Your task to perform on an android device: open app "Cash App" (install if not already installed) and go to login screen Image 0: 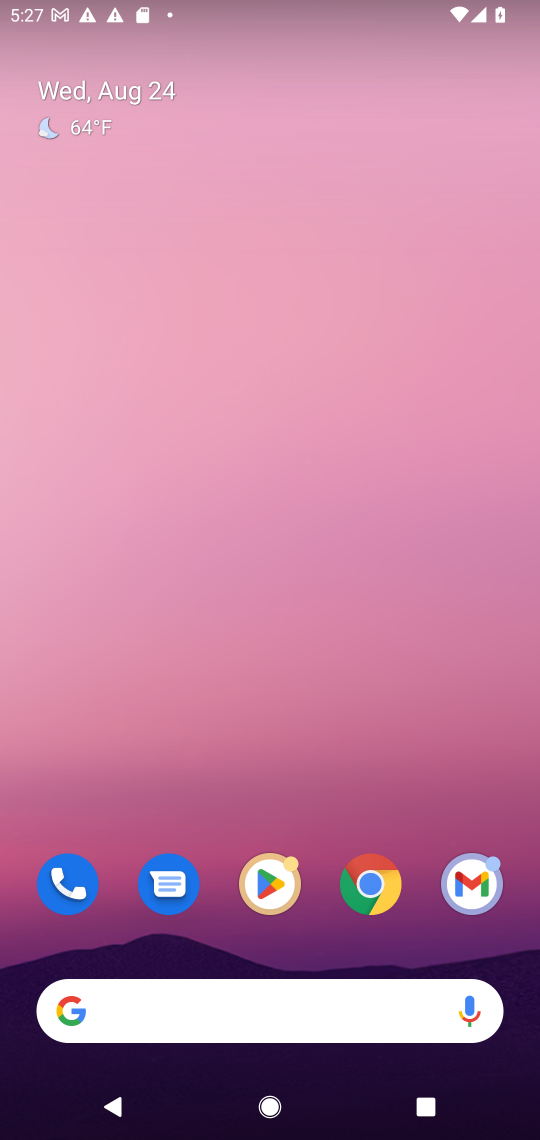
Step 0: click (267, 875)
Your task to perform on an android device: open app "Cash App" (install if not already installed) and go to login screen Image 1: 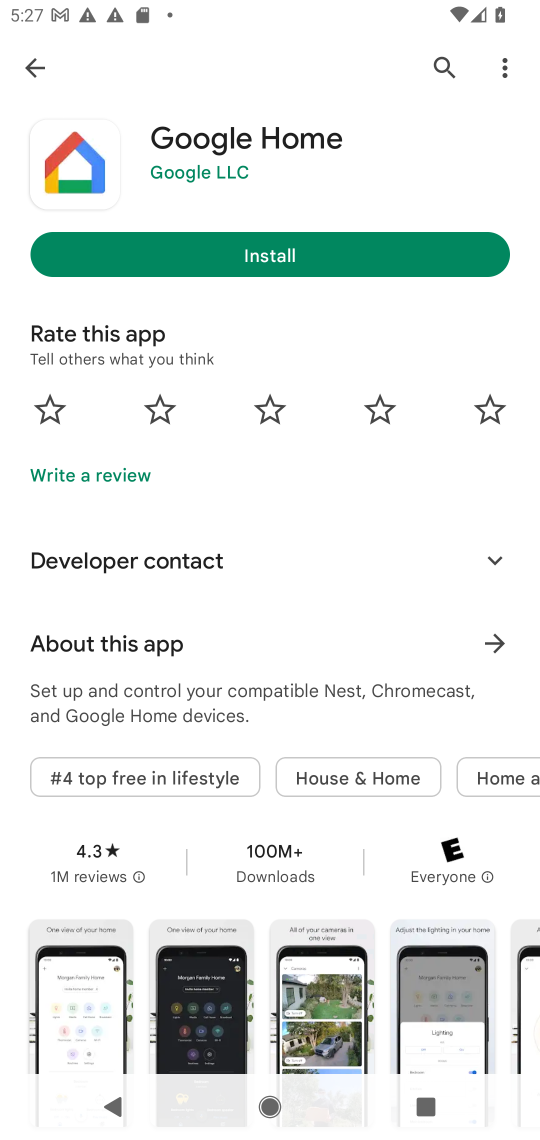
Step 1: click (30, 70)
Your task to perform on an android device: open app "Cash App" (install if not already installed) and go to login screen Image 2: 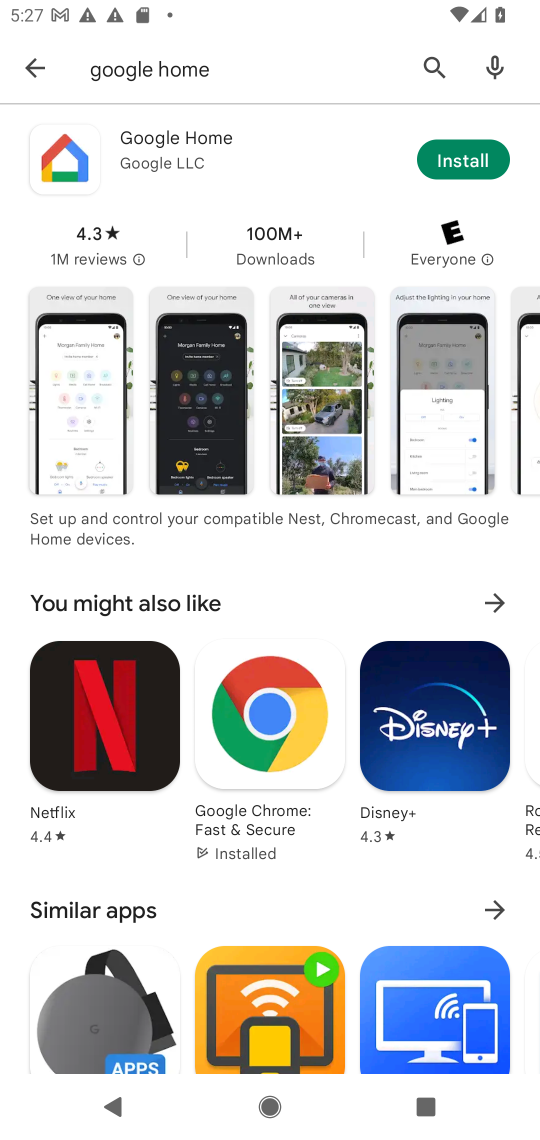
Step 2: click (30, 70)
Your task to perform on an android device: open app "Cash App" (install if not already installed) and go to login screen Image 3: 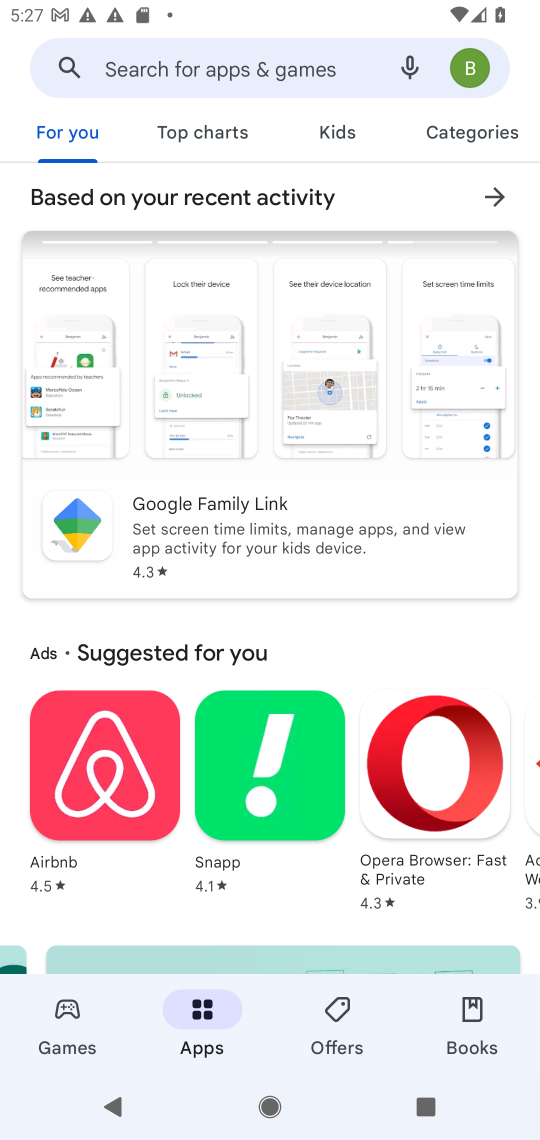
Step 3: click (129, 67)
Your task to perform on an android device: open app "Cash App" (install if not already installed) and go to login screen Image 4: 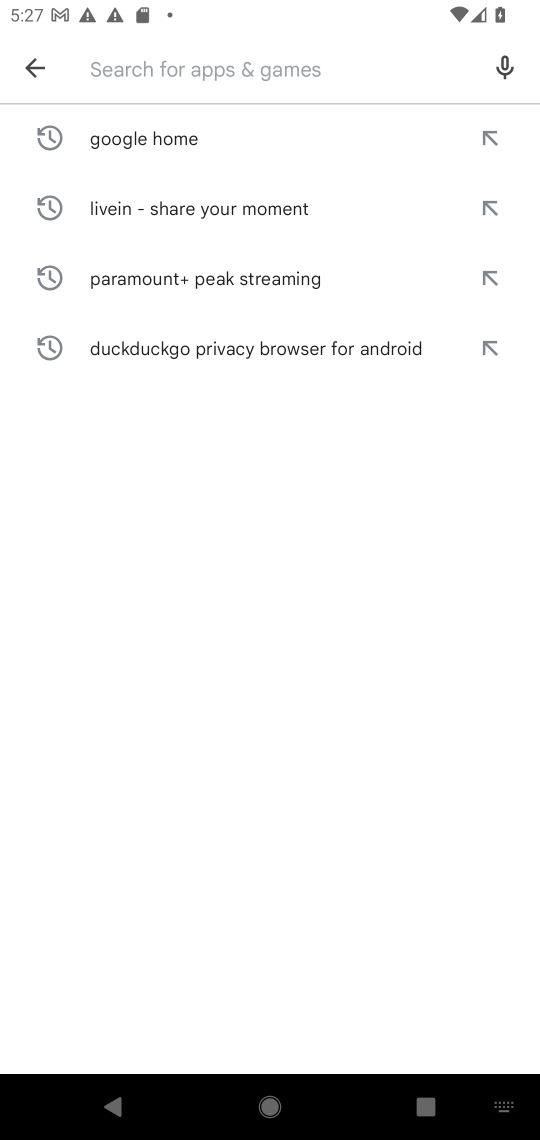
Step 4: type "Cash App"
Your task to perform on an android device: open app "Cash App" (install if not already installed) and go to login screen Image 5: 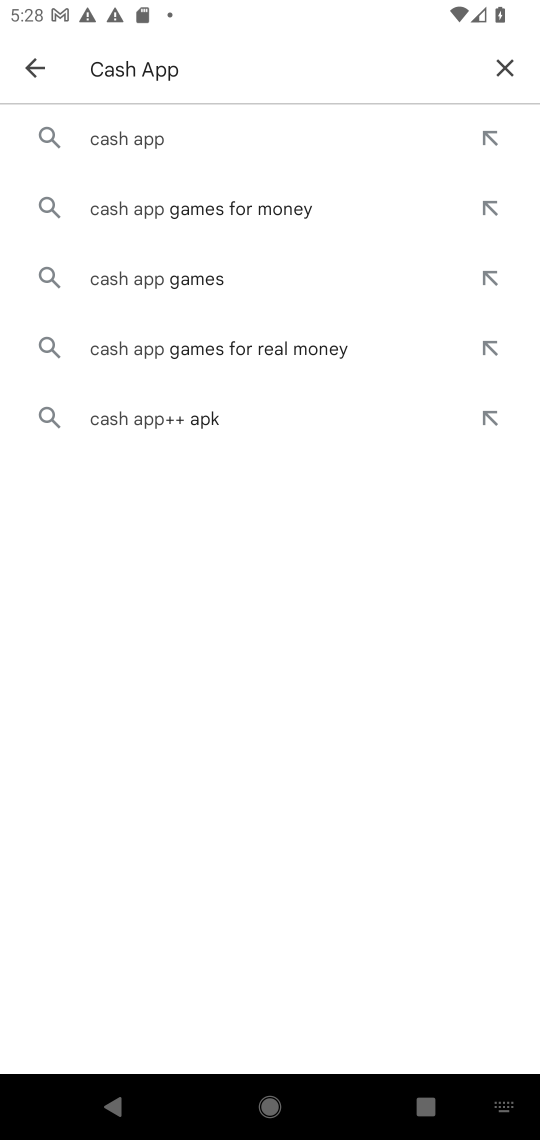
Step 5: click (124, 134)
Your task to perform on an android device: open app "Cash App" (install if not already installed) and go to login screen Image 6: 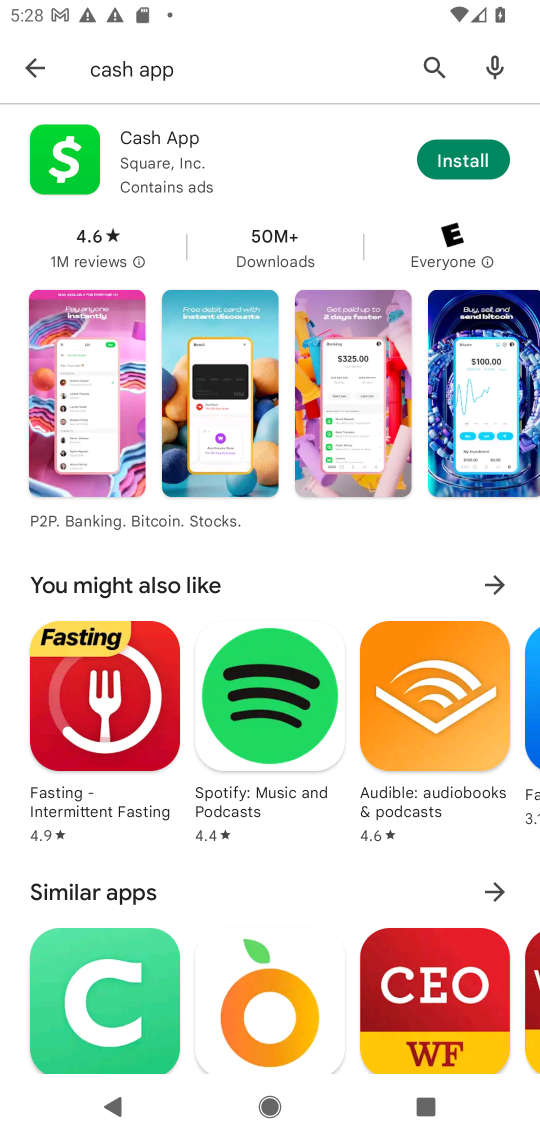
Step 6: click (441, 157)
Your task to perform on an android device: open app "Cash App" (install if not already installed) and go to login screen Image 7: 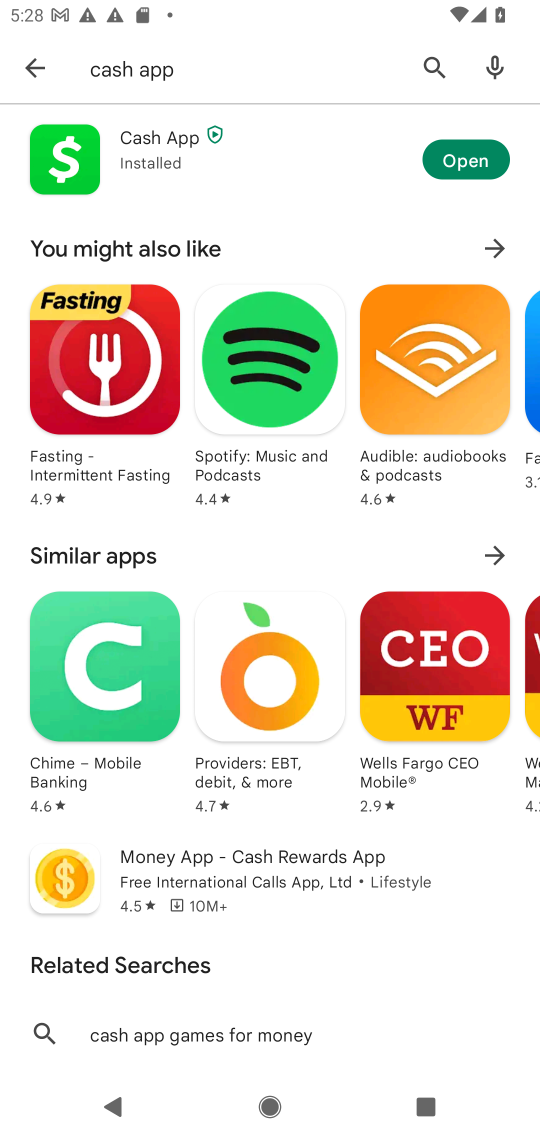
Step 7: click (462, 139)
Your task to perform on an android device: open app "Cash App" (install if not already installed) and go to login screen Image 8: 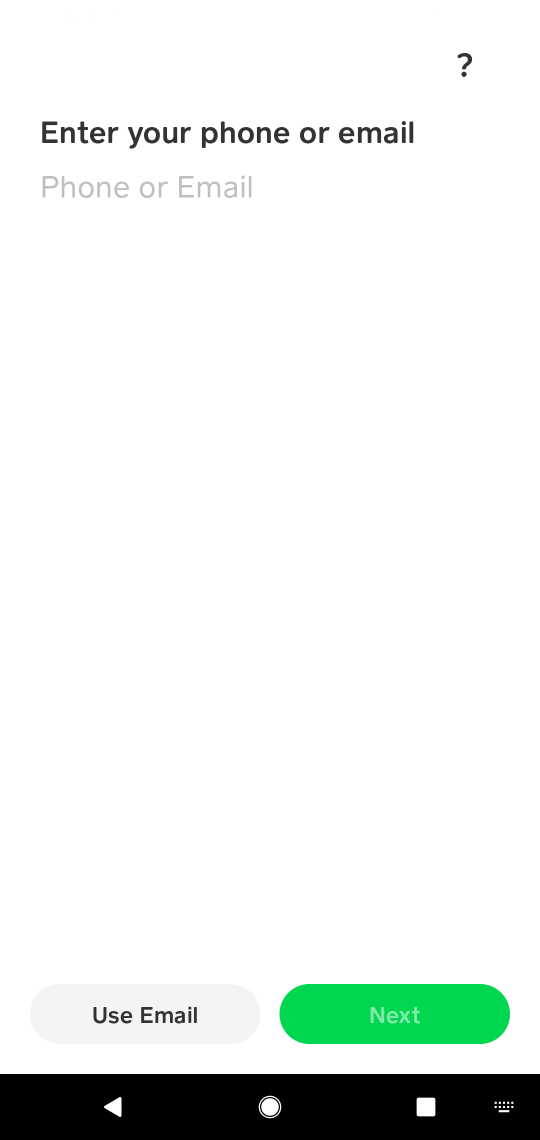
Step 8: task complete